Your task to perform on an android device: turn on priority inbox in the gmail app Image 0: 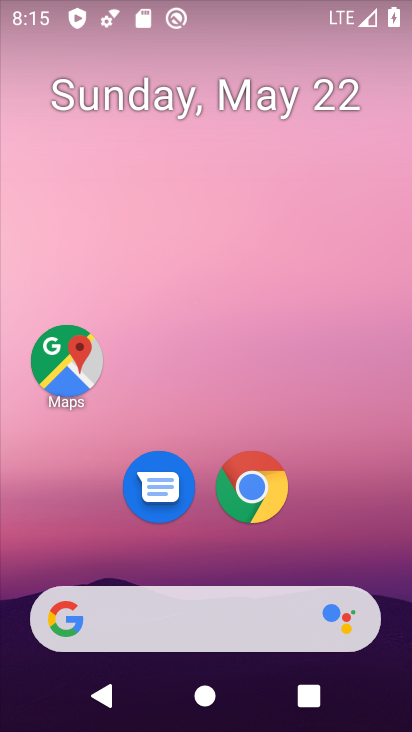
Step 0: drag from (354, 561) to (348, 7)
Your task to perform on an android device: turn on priority inbox in the gmail app Image 1: 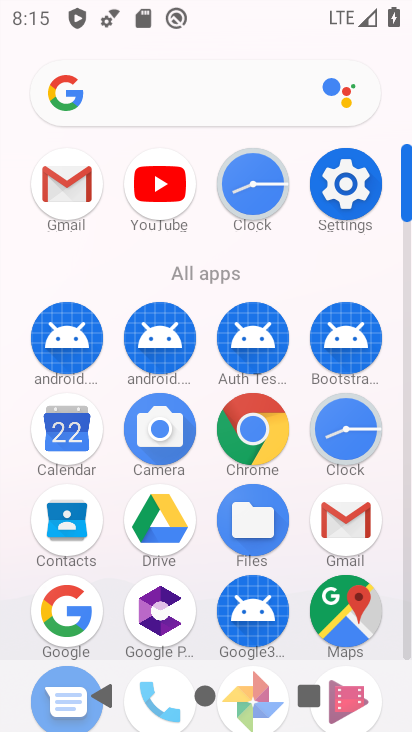
Step 1: click (349, 529)
Your task to perform on an android device: turn on priority inbox in the gmail app Image 2: 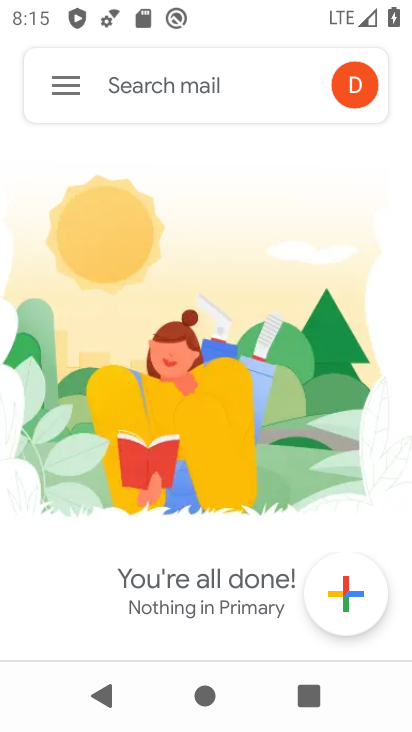
Step 2: click (64, 101)
Your task to perform on an android device: turn on priority inbox in the gmail app Image 3: 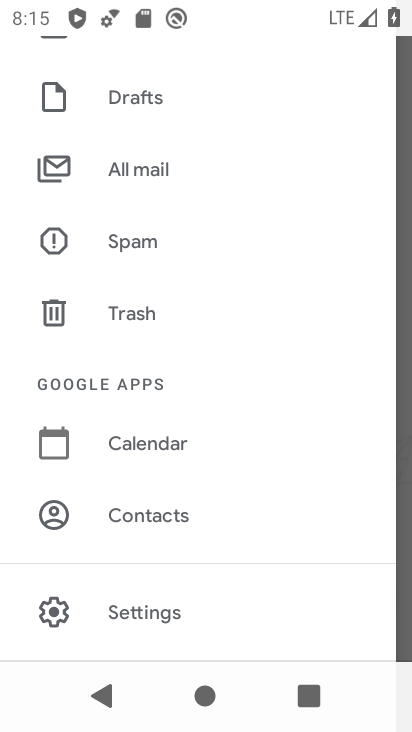
Step 3: click (111, 610)
Your task to perform on an android device: turn on priority inbox in the gmail app Image 4: 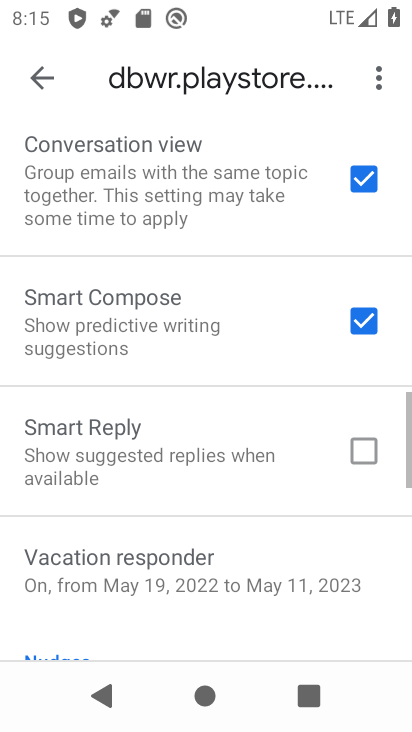
Step 4: drag from (111, 610) to (155, 83)
Your task to perform on an android device: turn on priority inbox in the gmail app Image 5: 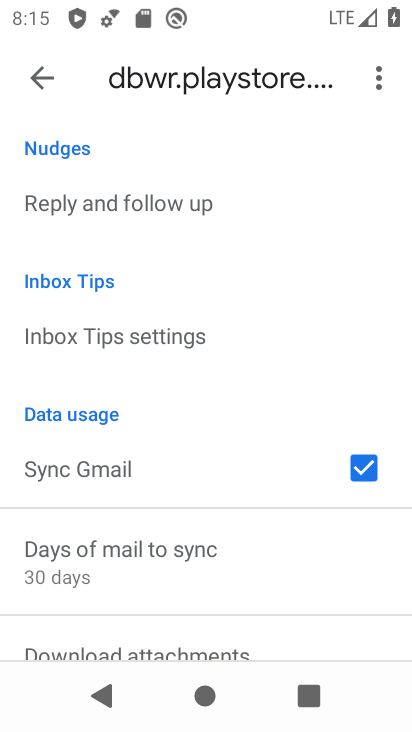
Step 5: drag from (200, 535) to (272, 23)
Your task to perform on an android device: turn on priority inbox in the gmail app Image 6: 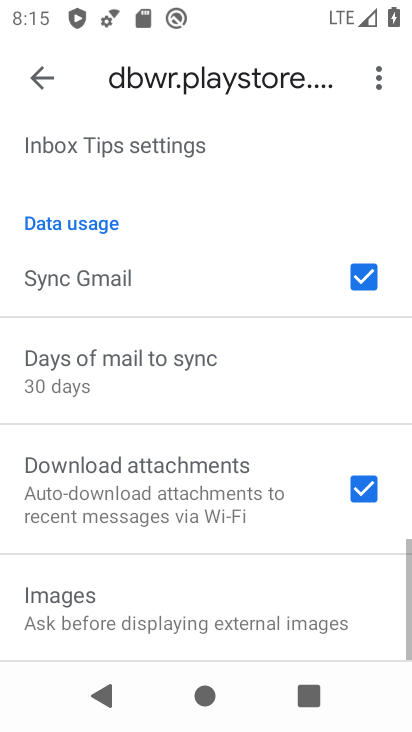
Step 6: drag from (259, 92) to (227, 605)
Your task to perform on an android device: turn on priority inbox in the gmail app Image 7: 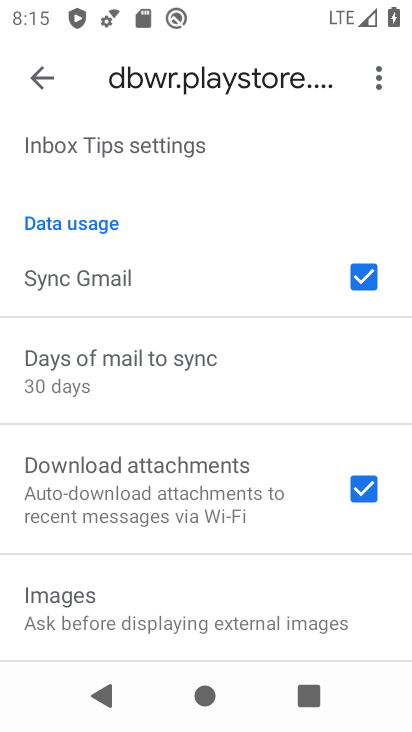
Step 7: drag from (198, 260) to (212, 625)
Your task to perform on an android device: turn on priority inbox in the gmail app Image 8: 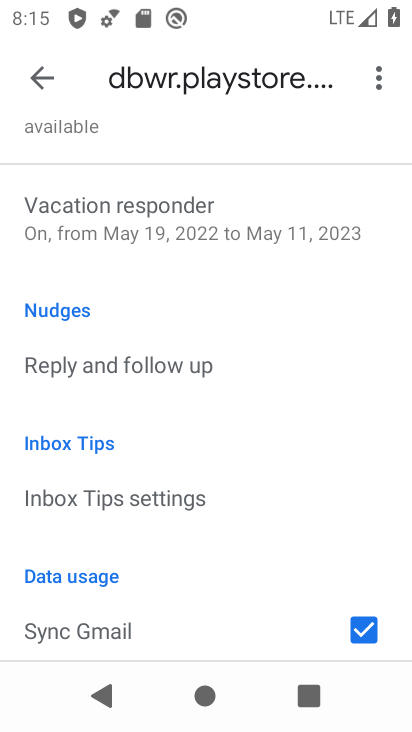
Step 8: drag from (272, 281) to (264, 676)
Your task to perform on an android device: turn on priority inbox in the gmail app Image 9: 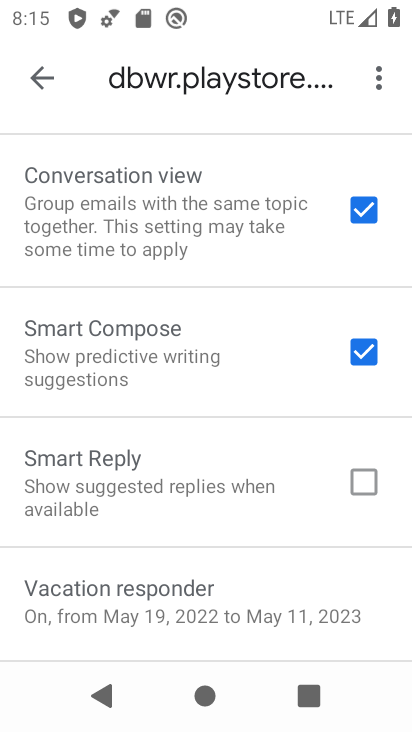
Step 9: click (275, 655)
Your task to perform on an android device: turn on priority inbox in the gmail app Image 10: 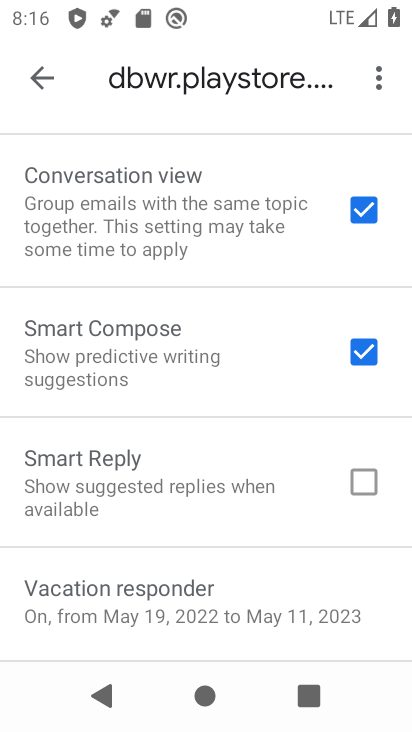
Step 10: drag from (240, 284) to (269, 601)
Your task to perform on an android device: turn on priority inbox in the gmail app Image 11: 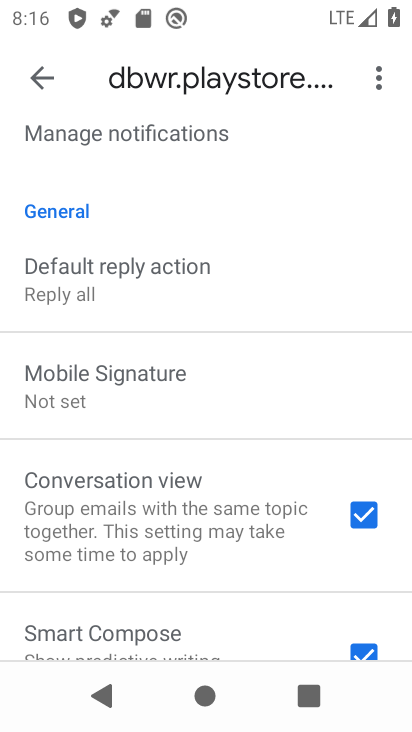
Step 11: drag from (266, 221) to (269, 591)
Your task to perform on an android device: turn on priority inbox in the gmail app Image 12: 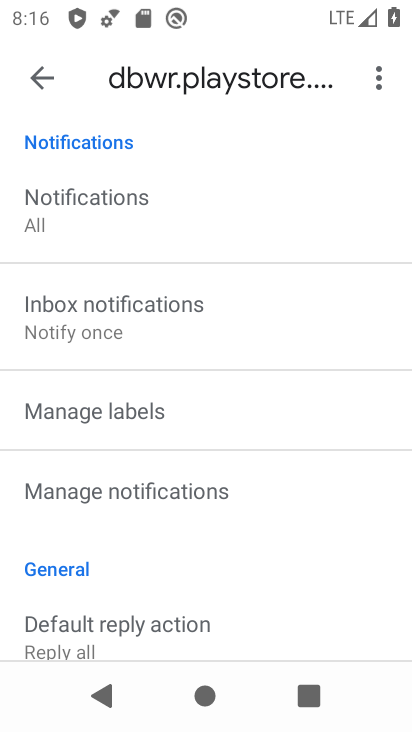
Step 12: drag from (240, 327) to (255, 619)
Your task to perform on an android device: turn on priority inbox in the gmail app Image 13: 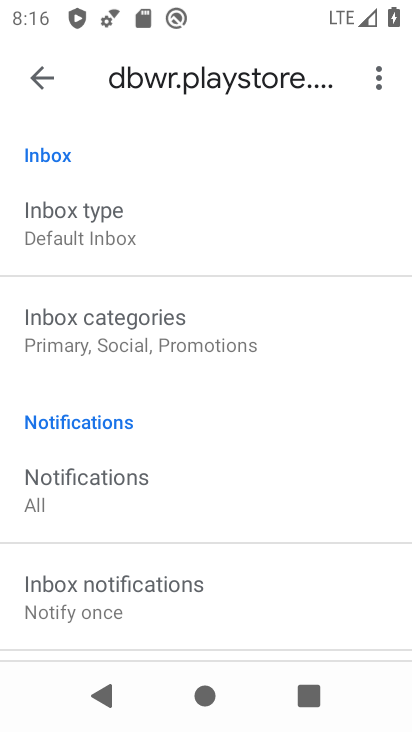
Step 13: drag from (309, 247) to (308, 596)
Your task to perform on an android device: turn on priority inbox in the gmail app Image 14: 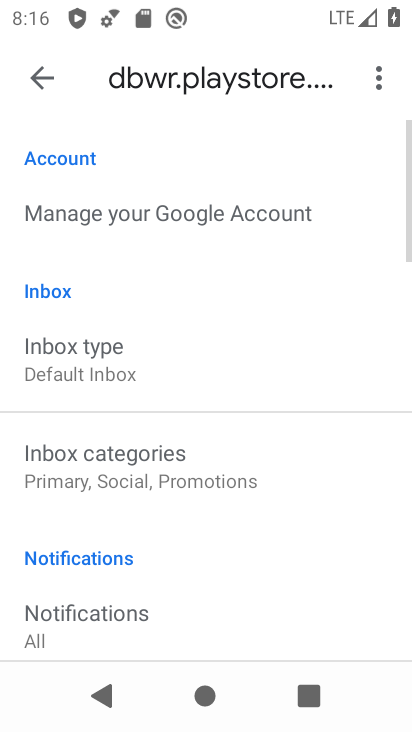
Step 14: click (39, 367)
Your task to perform on an android device: turn on priority inbox in the gmail app Image 15: 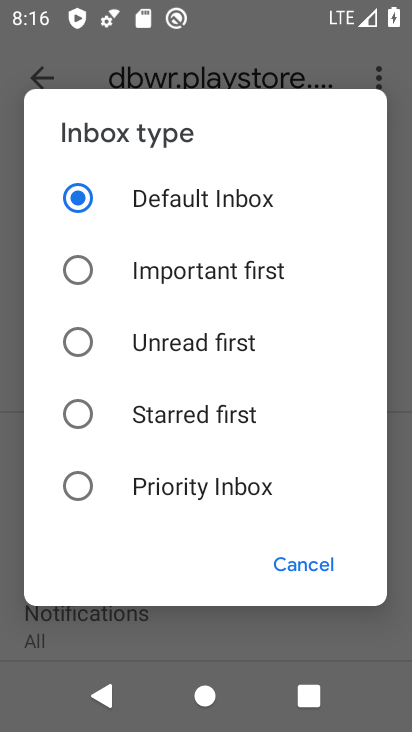
Step 15: click (100, 482)
Your task to perform on an android device: turn on priority inbox in the gmail app Image 16: 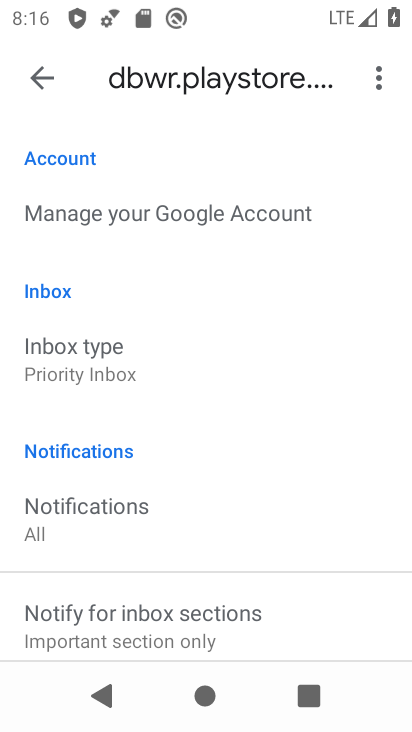
Step 16: task complete